Your task to perform on an android device: turn on notifications settings in the gmail app Image 0: 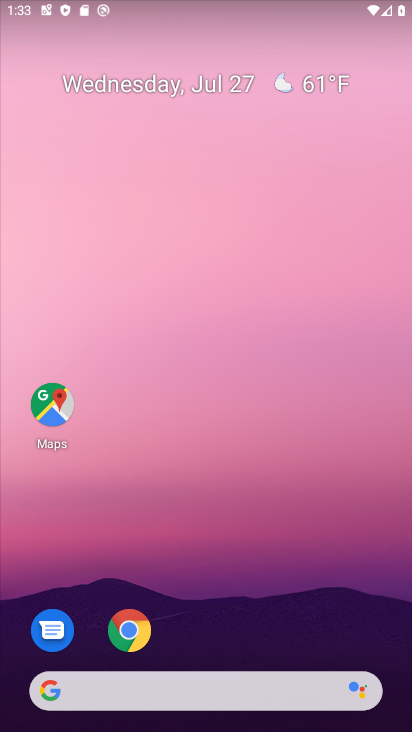
Step 0: drag from (160, 610) to (197, 180)
Your task to perform on an android device: turn on notifications settings in the gmail app Image 1: 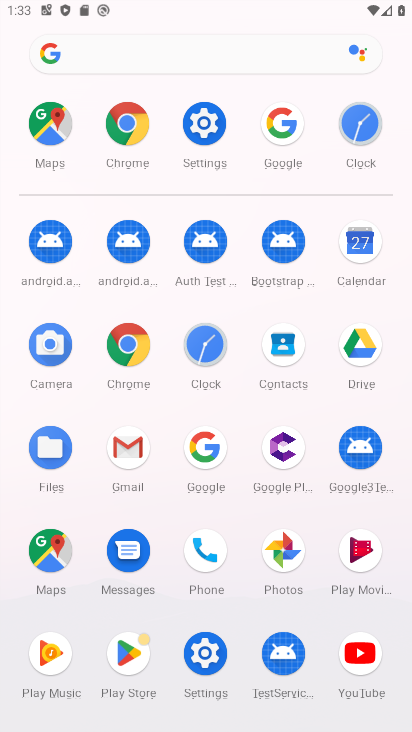
Step 1: click (137, 456)
Your task to perform on an android device: turn on notifications settings in the gmail app Image 2: 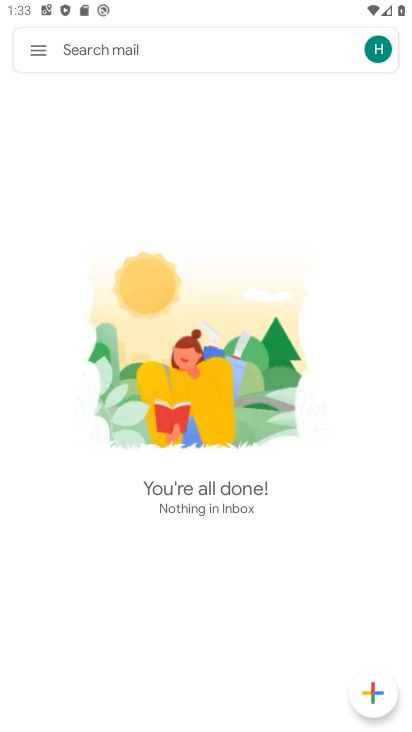
Step 2: click (40, 47)
Your task to perform on an android device: turn on notifications settings in the gmail app Image 3: 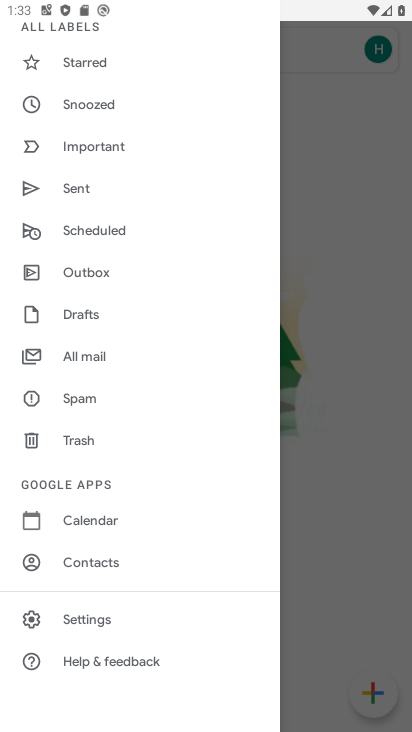
Step 3: click (102, 620)
Your task to perform on an android device: turn on notifications settings in the gmail app Image 4: 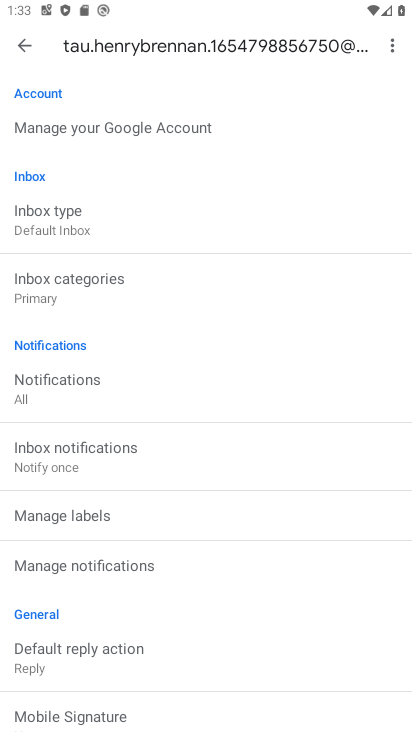
Step 4: click (40, 563)
Your task to perform on an android device: turn on notifications settings in the gmail app Image 5: 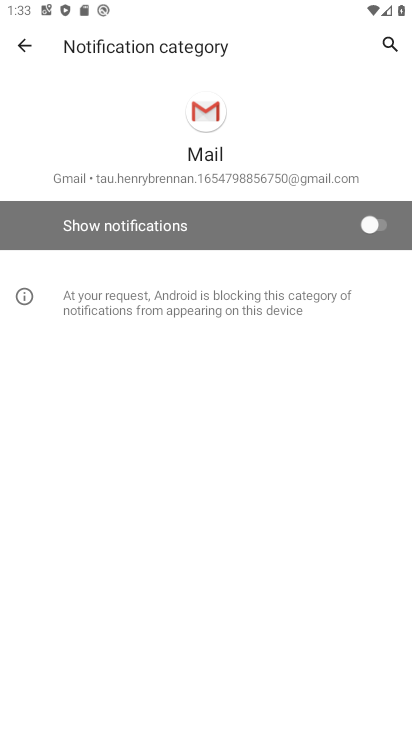
Step 5: click (381, 228)
Your task to perform on an android device: turn on notifications settings in the gmail app Image 6: 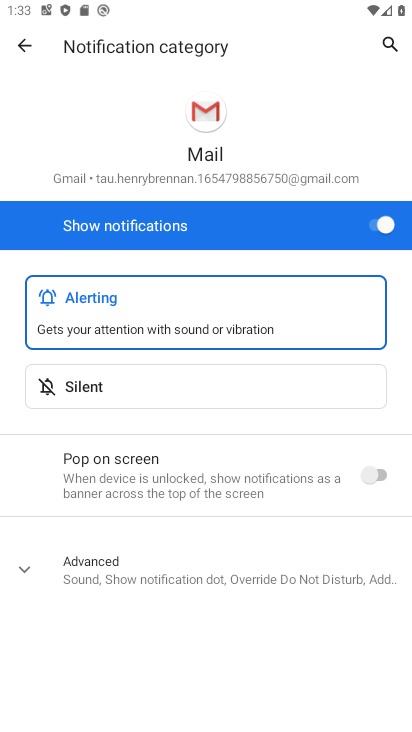
Step 6: task complete